Your task to perform on an android device: remove spam from my inbox in the gmail app Image 0: 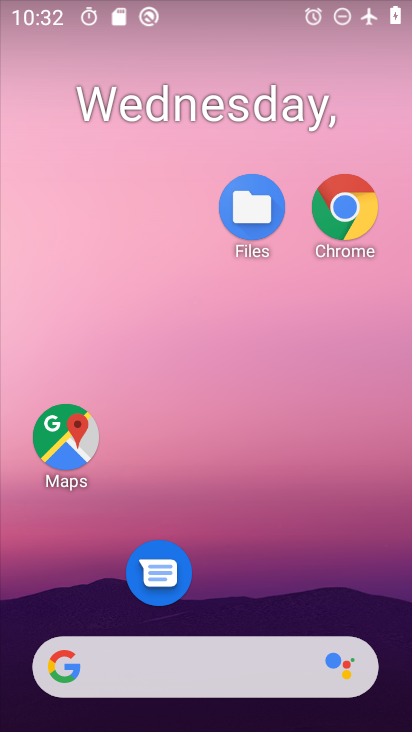
Step 0: drag from (264, 622) to (279, 358)
Your task to perform on an android device: remove spam from my inbox in the gmail app Image 1: 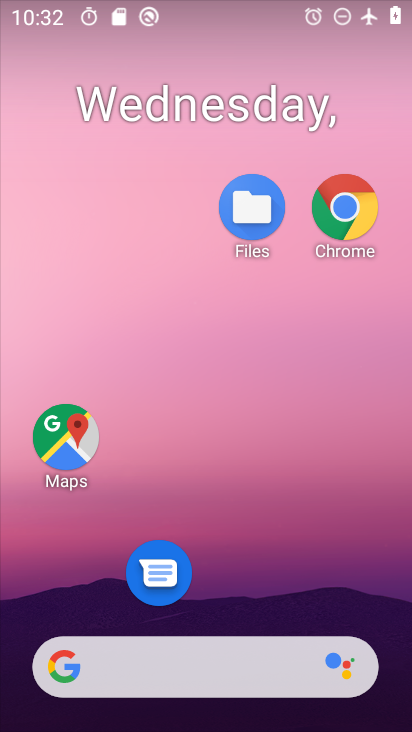
Step 1: drag from (285, 624) to (255, 225)
Your task to perform on an android device: remove spam from my inbox in the gmail app Image 2: 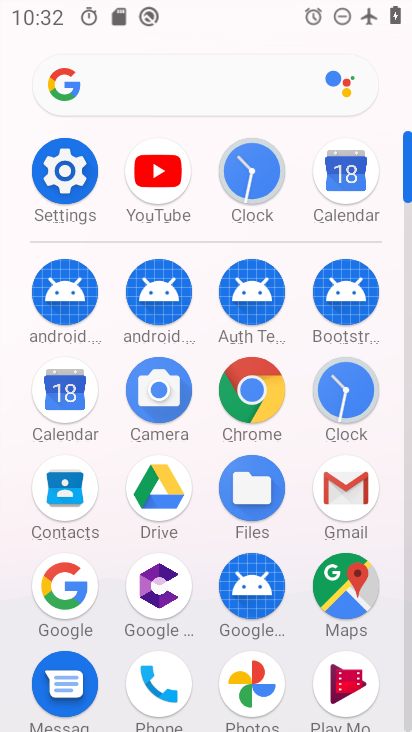
Step 2: click (361, 514)
Your task to perform on an android device: remove spam from my inbox in the gmail app Image 3: 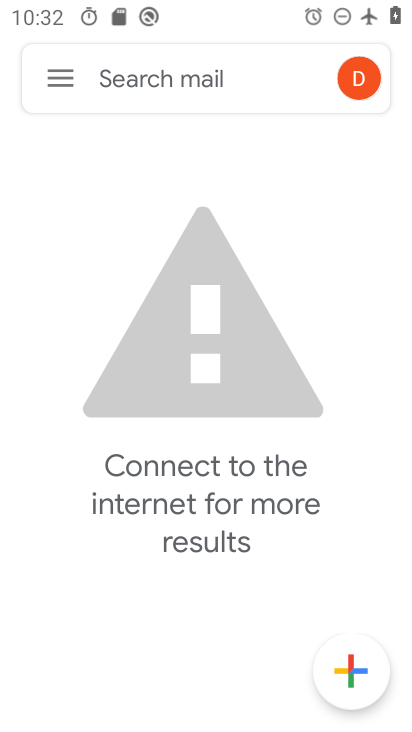
Step 3: click (57, 75)
Your task to perform on an android device: remove spam from my inbox in the gmail app Image 4: 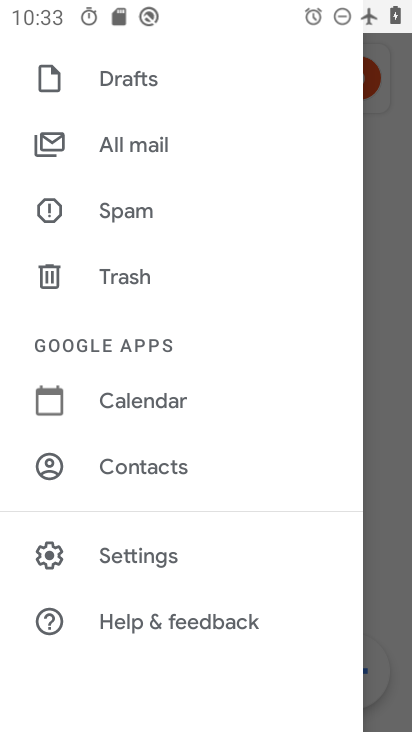
Step 4: click (217, 214)
Your task to perform on an android device: remove spam from my inbox in the gmail app Image 5: 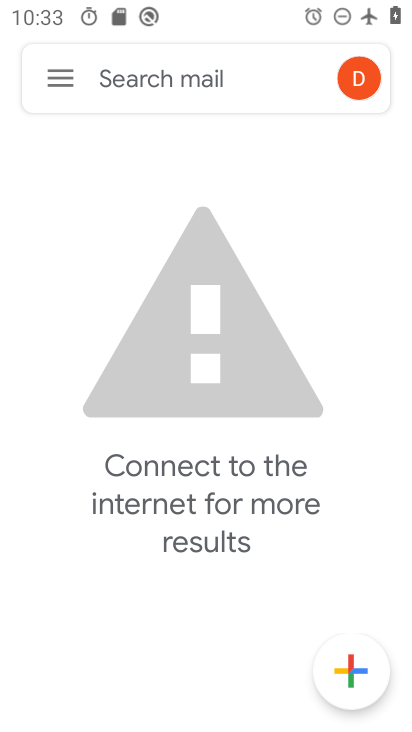
Step 5: task complete